Your task to perform on an android device: Open the web browser Image 0: 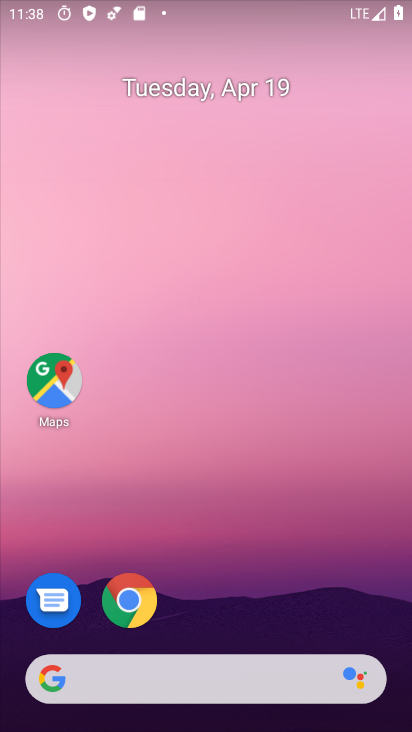
Step 0: click (129, 603)
Your task to perform on an android device: Open the web browser Image 1: 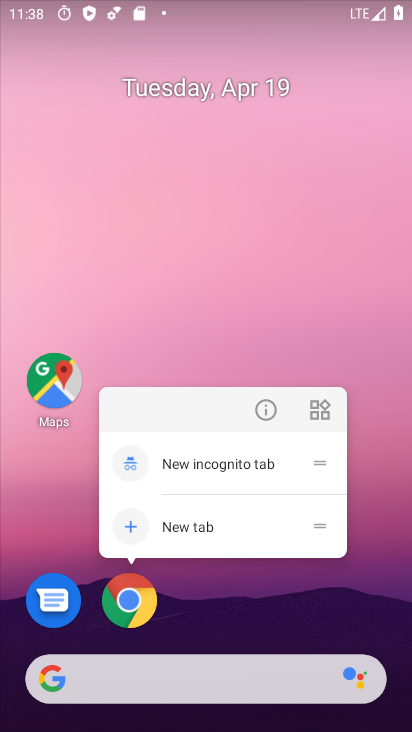
Step 1: click (129, 603)
Your task to perform on an android device: Open the web browser Image 2: 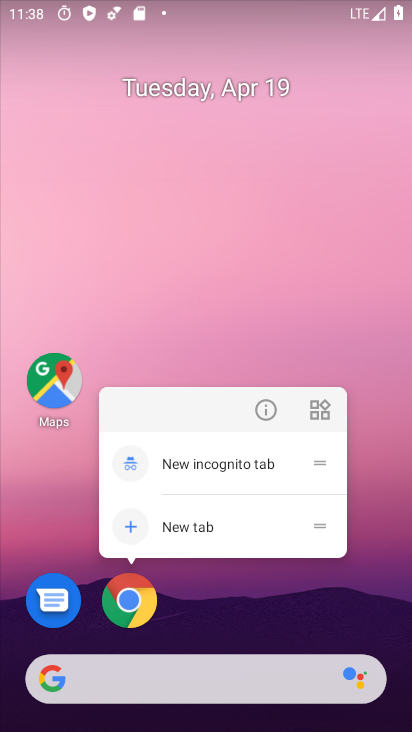
Step 2: click (129, 603)
Your task to perform on an android device: Open the web browser Image 3: 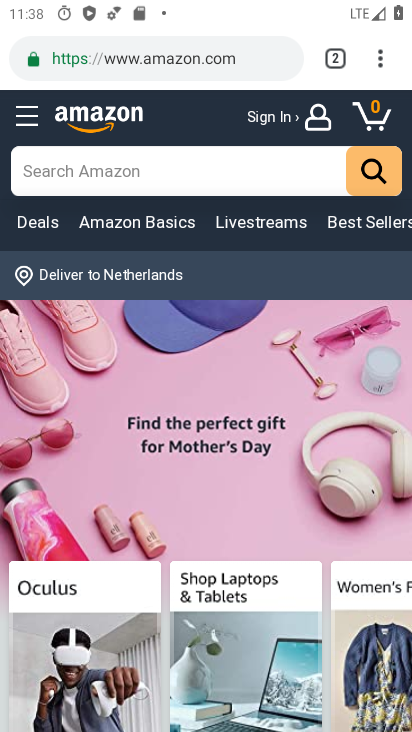
Step 3: task complete